Your task to perform on an android device: see sites visited before in the chrome app Image 0: 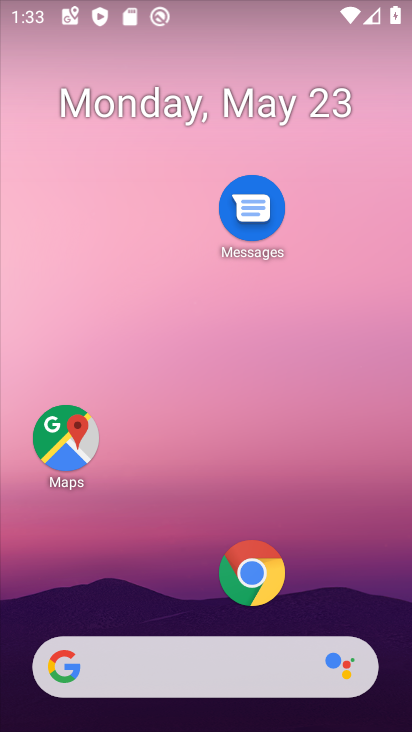
Step 0: drag from (162, 585) to (231, 179)
Your task to perform on an android device: see sites visited before in the chrome app Image 1: 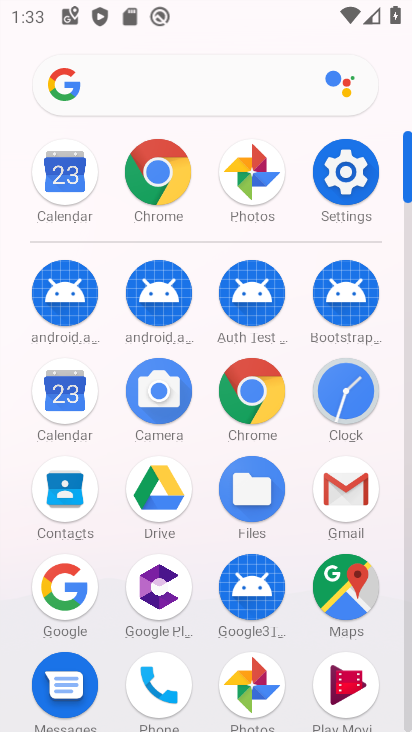
Step 1: click (174, 177)
Your task to perform on an android device: see sites visited before in the chrome app Image 2: 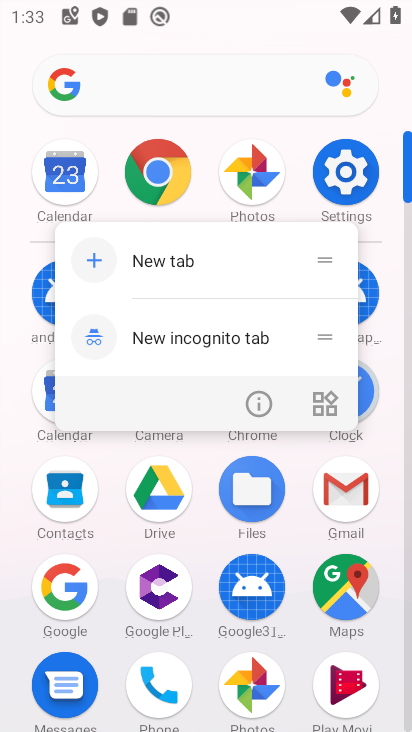
Step 2: click (168, 171)
Your task to perform on an android device: see sites visited before in the chrome app Image 3: 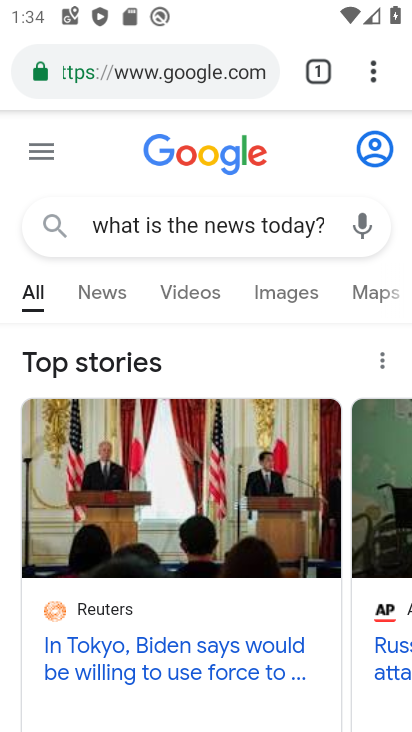
Step 3: click (374, 79)
Your task to perform on an android device: see sites visited before in the chrome app Image 4: 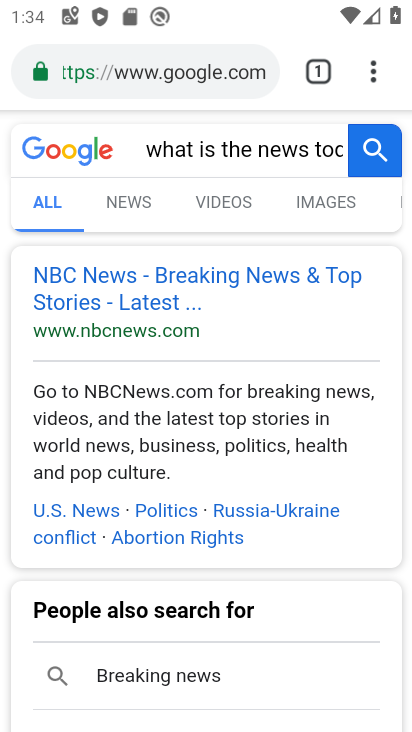
Step 4: click (372, 73)
Your task to perform on an android device: see sites visited before in the chrome app Image 5: 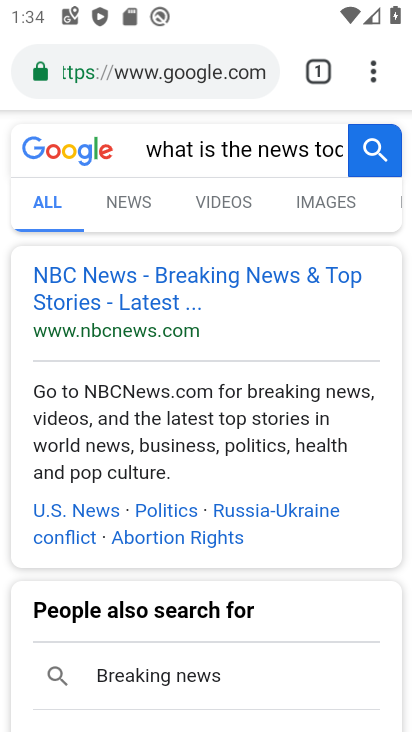
Step 5: click (370, 66)
Your task to perform on an android device: see sites visited before in the chrome app Image 6: 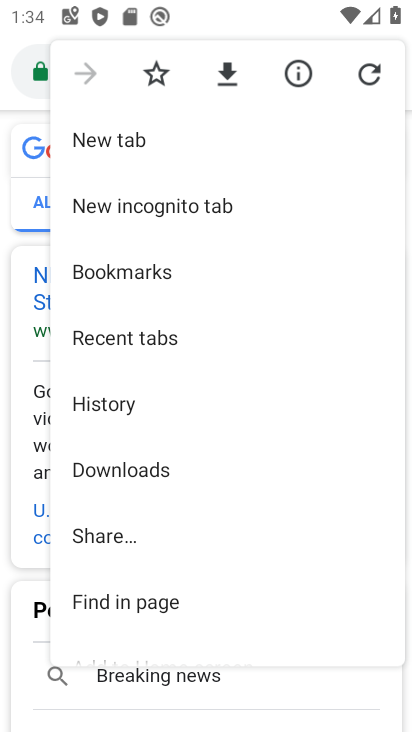
Step 6: click (172, 346)
Your task to perform on an android device: see sites visited before in the chrome app Image 7: 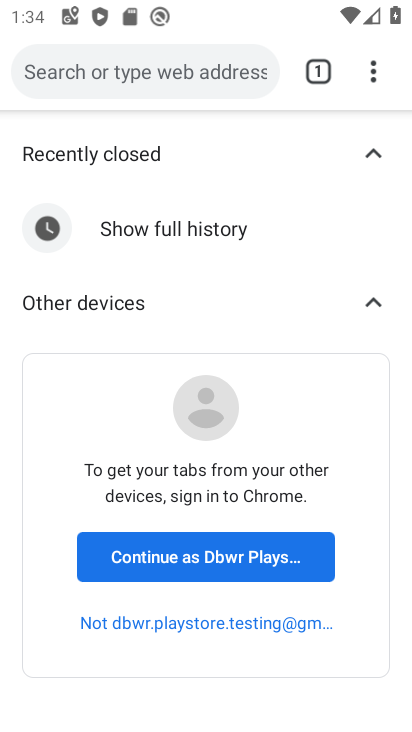
Step 7: task complete